Your task to perform on an android device: open chrome privacy settings Image 0: 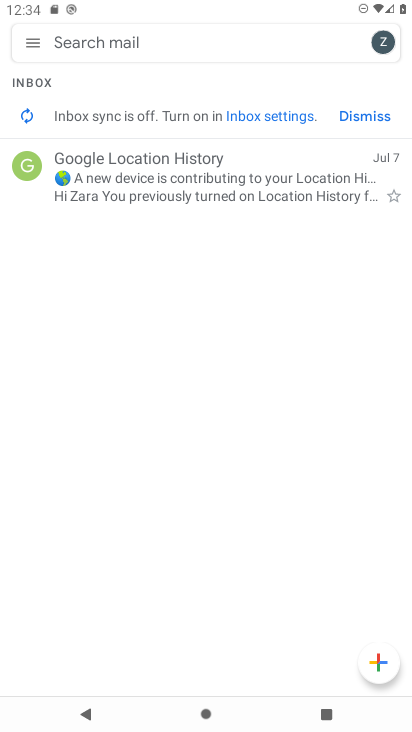
Step 0: press home button
Your task to perform on an android device: open chrome privacy settings Image 1: 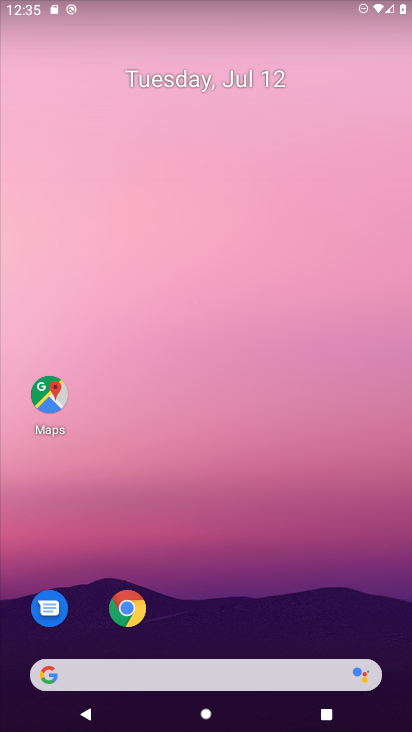
Step 1: drag from (194, 652) to (195, 50)
Your task to perform on an android device: open chrome privacy settings Image 2: 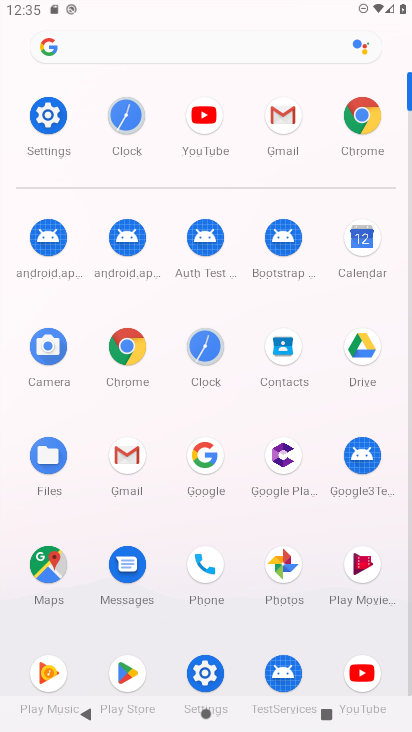
Step 2: click (129, 337)
Your task to perform on an android device: open chrome privacy settings Image 3: 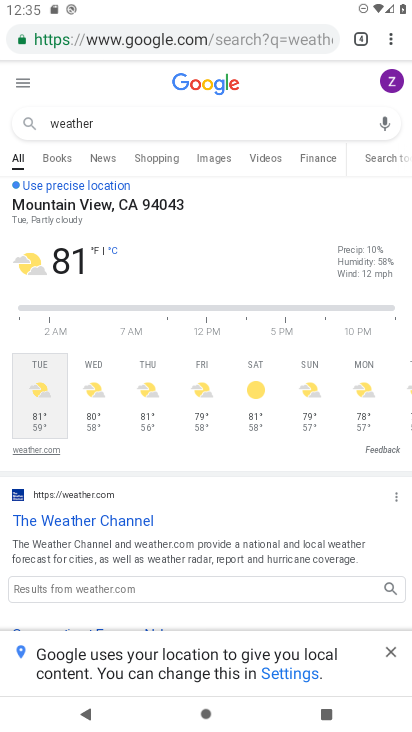
Step 3: drag from (393, 38) to (265, 427)
Your task to perform on an android device: open chrome privacy settings Image 4: 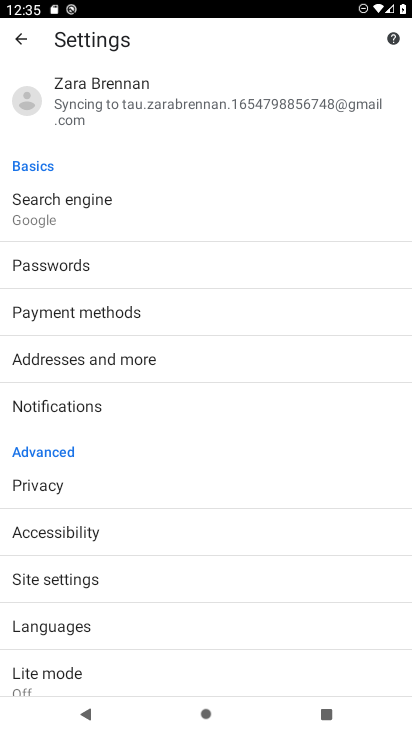
Step 4: click (105, 485)
Your task to perform on an android device: open chrome privacy settings Image 5: 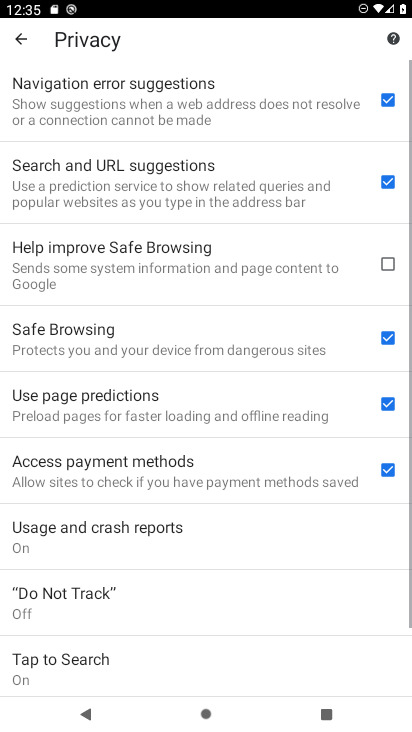
Step 5: task complete